Your task to perform on an android device: Open maps Image 0: 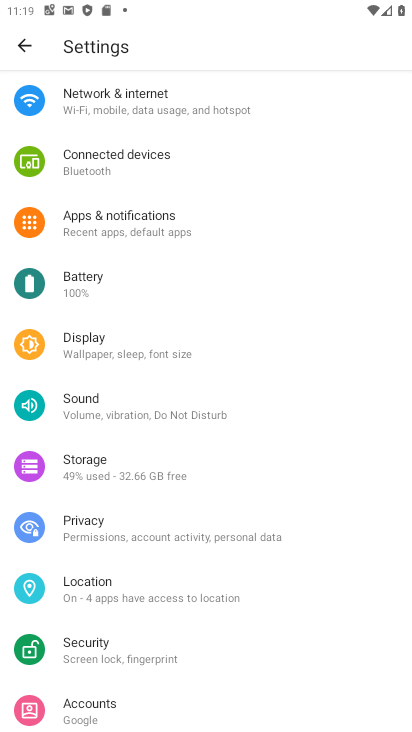
Step 0: press home button
Your task to perform on an android device: Open maps Image 1: 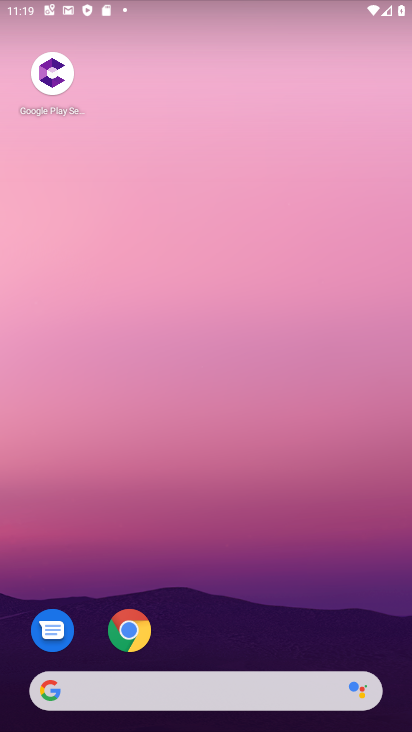
Step 1: drag from (182, 587) to (182, 137)
Your task to perform on an android device: Open maps Image 2: 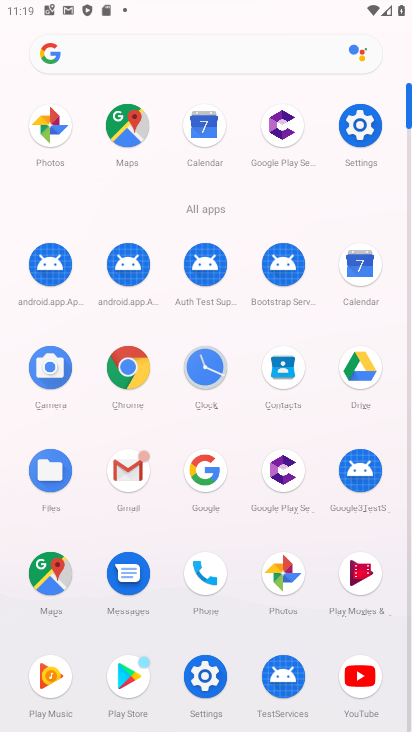
Step 2: click (133, 141)
Your task to perform on an android device: Open maps Image 3: 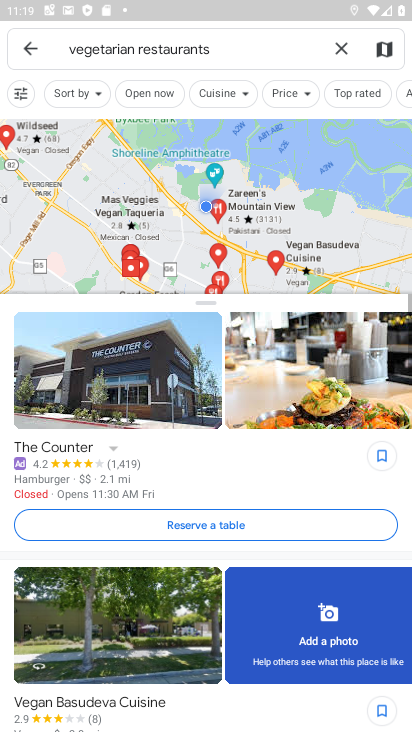
Step 3: task complete